Your task to perform on an android device: clear all cookies in the chrome app Image 0: 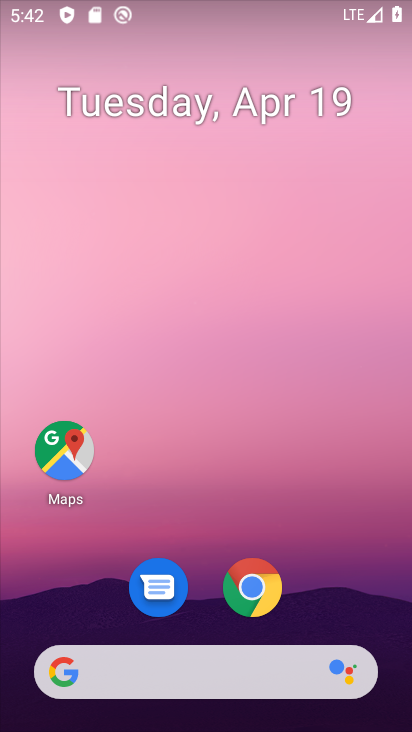
Step 0: click (257, 574)
Your task to perform on an android device: clear all cookies in the chrome app Image 1: 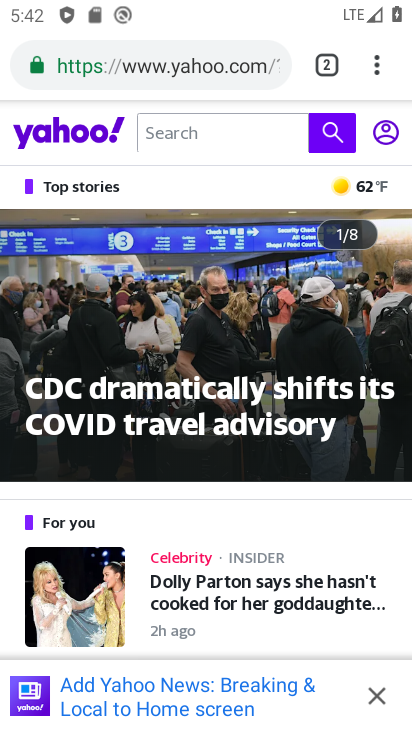
Step 1: click (366, 70)
Your task to perform on an android device: clear all cookies in the chrome app Image 2: 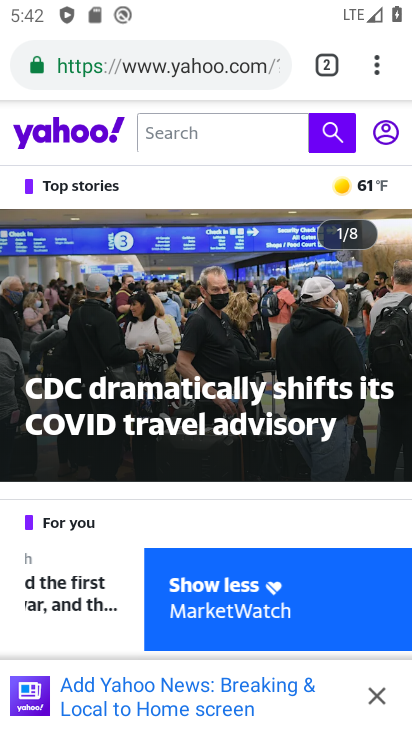
Step 2: click (381, 62)
Your task to perform on an android device: clear all cookies in the chrome app Image 3: 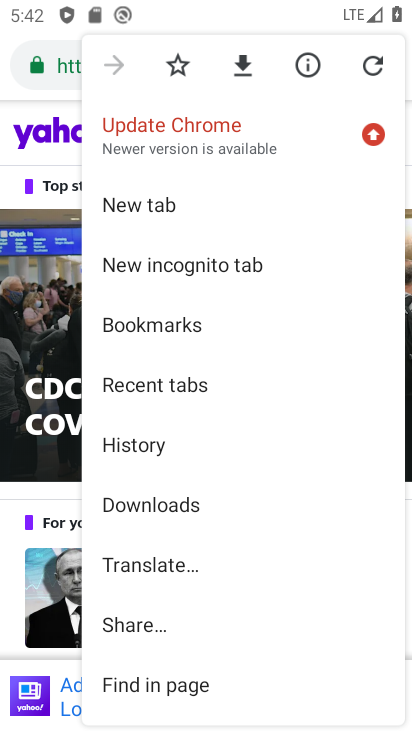
Step 3: click (128, 455)
Your task to perform on an android device: clear all cookies in the chrome app Image 4: 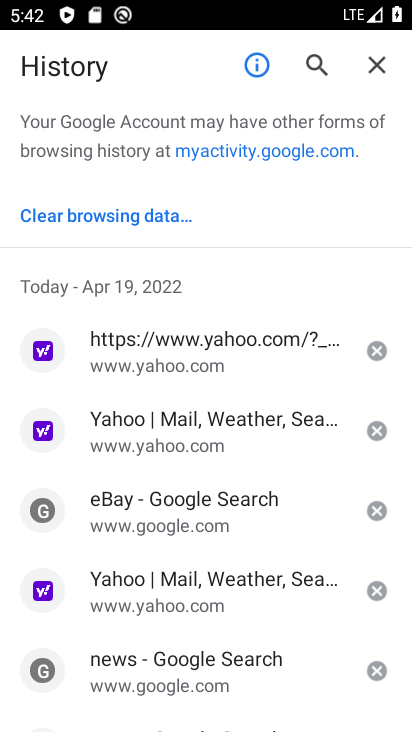
Step 4: click (129, 218)
Your task to perform on an android device: clear all cookies in the chrome app Image 5: 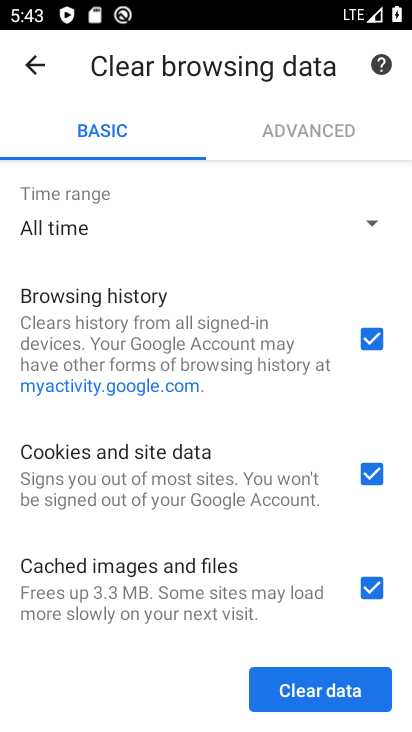
Step 5: click (372, 342)
Your task to perform on an android device: clear all cookies in the chrome app Image 6: 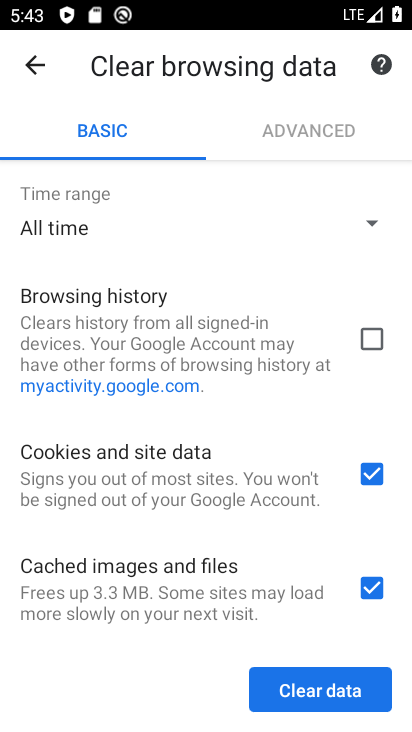
Step 6: click (374, 595)
Your task to perform on an android device: clear all cookies in the chrome app Image 7: 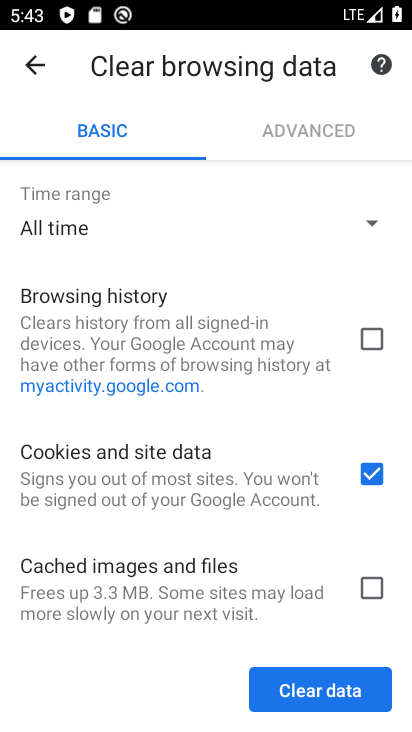
Step 7: click (316, 703)
Your task to perform on an android device: clear all cookies in the chrome app Image 8: 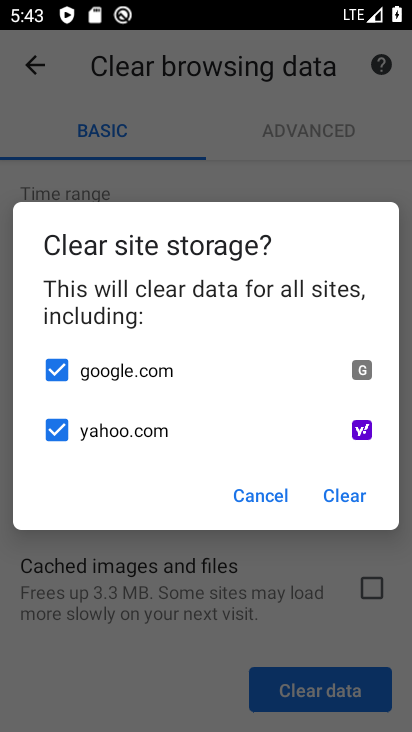
Step 8: click (345, 510)
Your task to perform on an android device: clear all cookies in the chrome app Image 9: 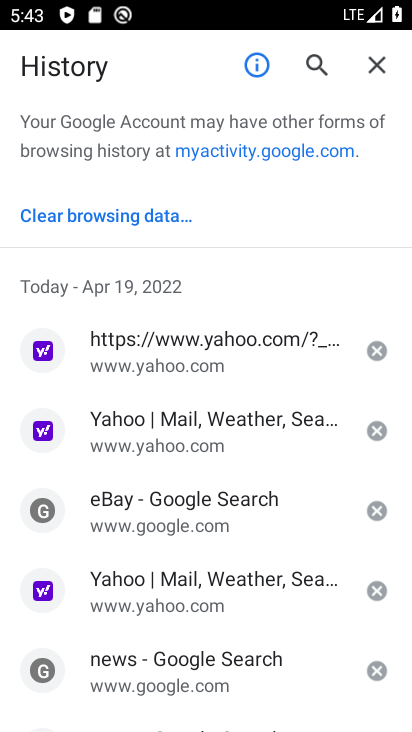
Step 9: task complete